Your task to perform on an android device: open app "Instagram" (install if not already installed) and enter user name: "nobler@yahoo.com" and password: "foraging" Image 0: 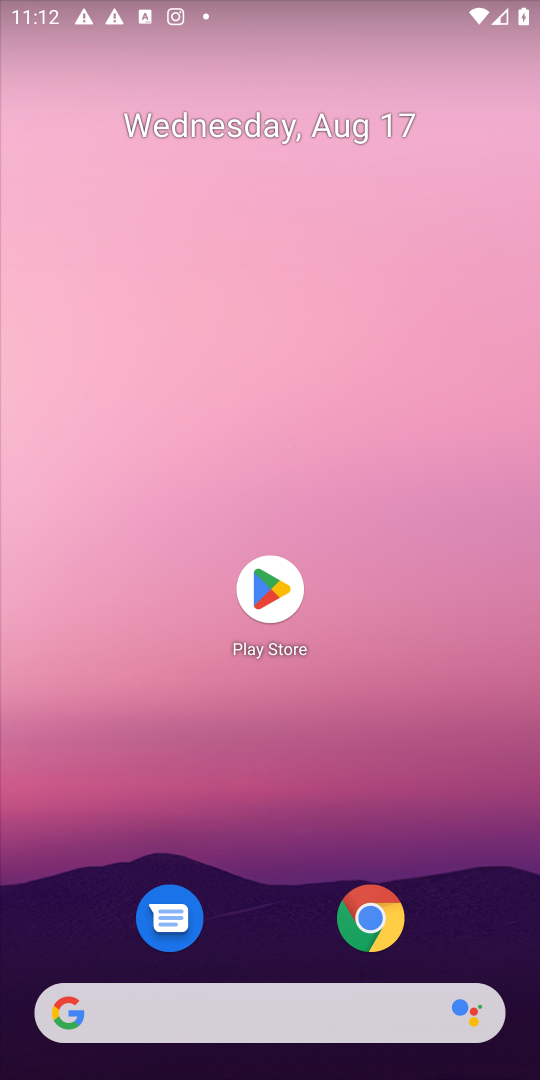
Step 0: click (257, 585)
Your task to perform on an android device: open app "Instagram" (install if not already installed) and enter user name: "nobler@yahoo.com" and password: "foraging" Image 1: 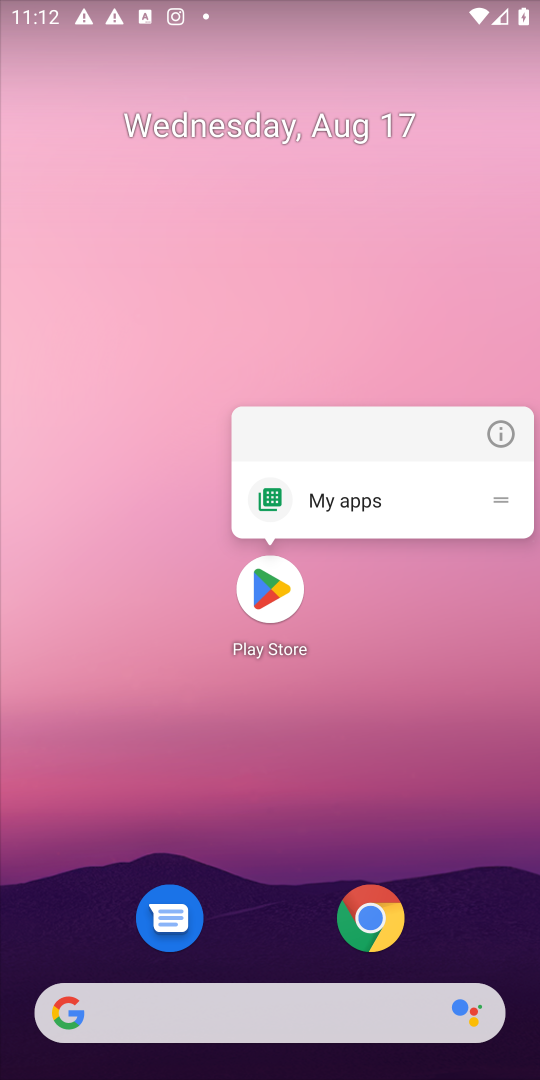
Step 1: click (257, 585)
Your task to perform on an android device: open app "Instagram" (install if not already installed) and enter user name: "nobler@yahoo.com" and password: "foraging" Image 2: 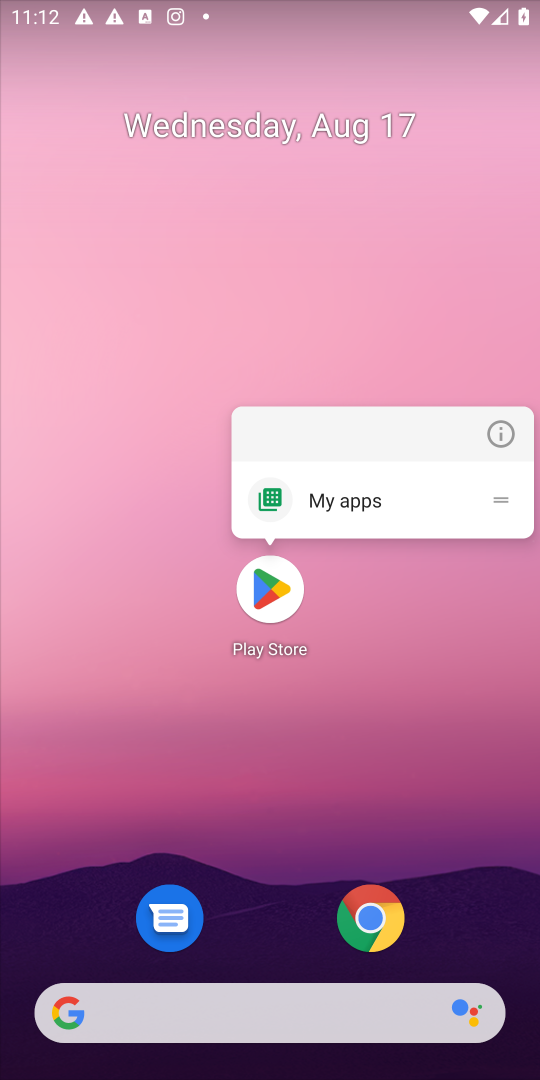
Step 2: click (247, 578)
Your task to perform on an android device: open app "Instagram" (install if not already installed) and enter user name: "nobler@yahoo.com" and password: "foraging" Image 3: 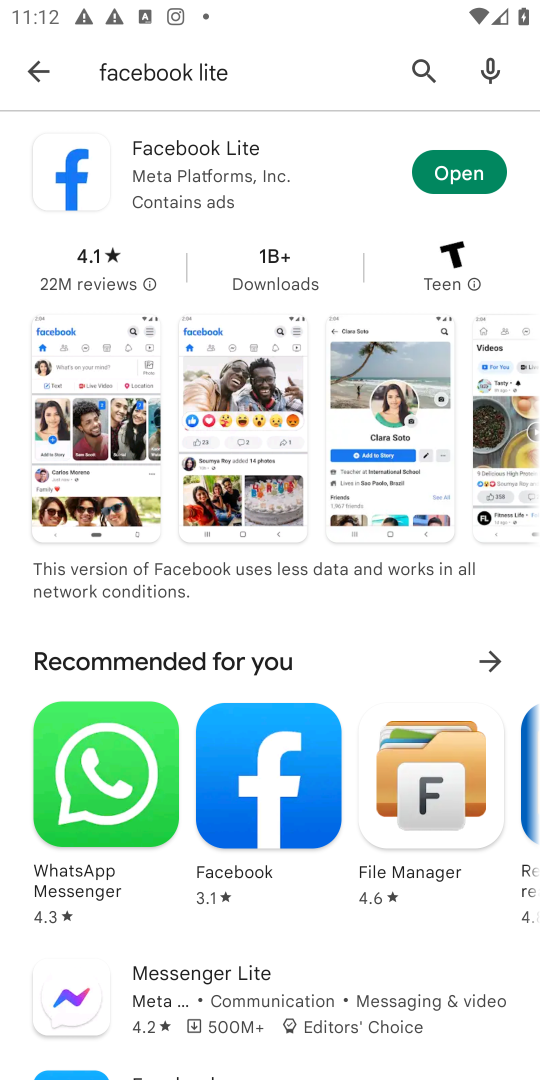
Step 3: click (415, 63)
Your task to perform on an android device: open app "Instagram" (install if not already installed) and enter user name: "nobler@yahoo.com" and password: "foraging" Image 4: 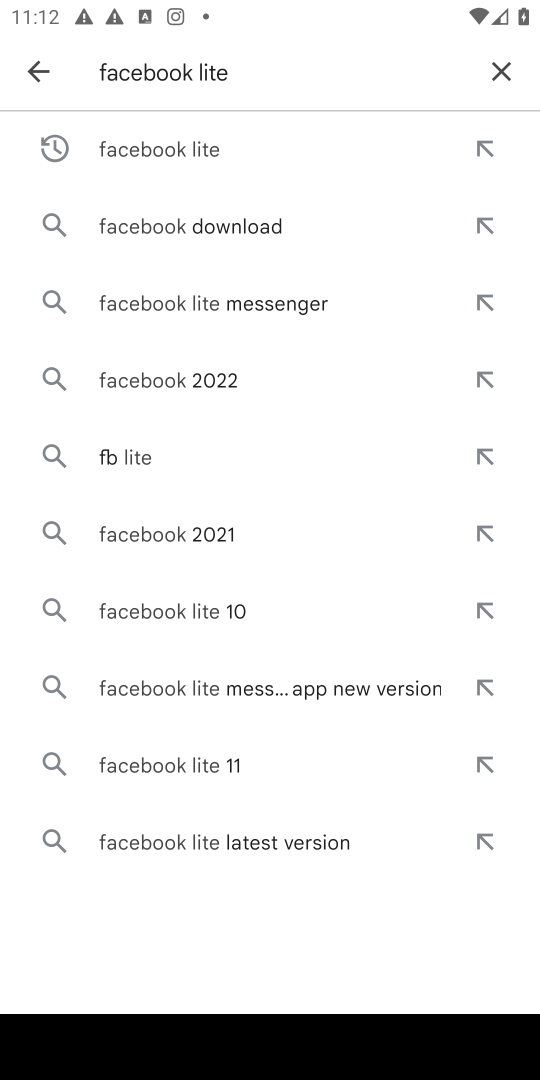
Step 4: click (498, 56)
Your task to perform on an android device: open app "Instagram" (install if not already installed) and enter user name: "nobler@yahoo.com" and password: "foraging" Image 5: 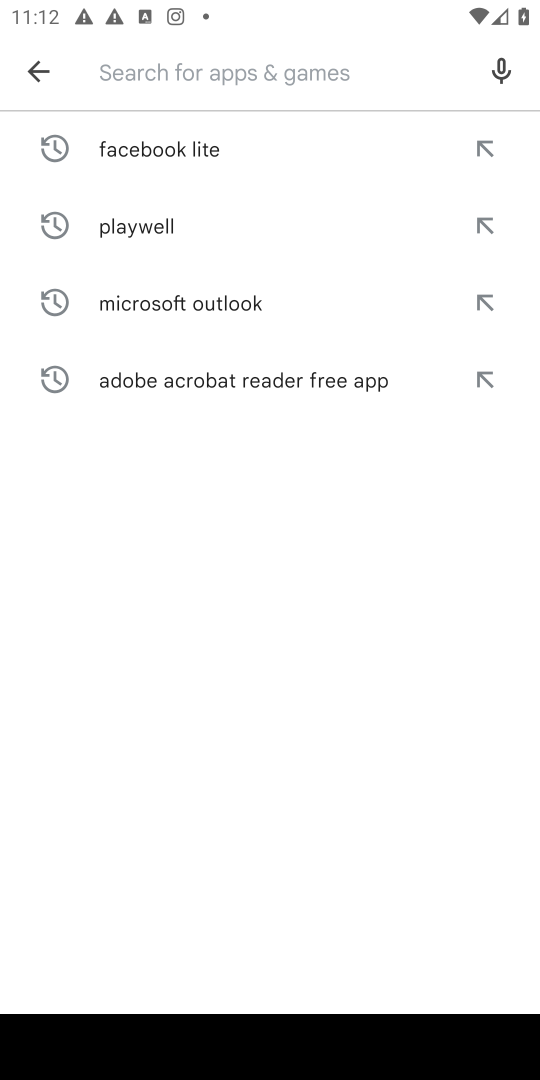
Step 5: type "Instagram"
Your task to perform on an android device: open app "Instagram" (install if not already installed) and enter user name: "nobler@yahoo.com" and password: "foraging" Image 6: 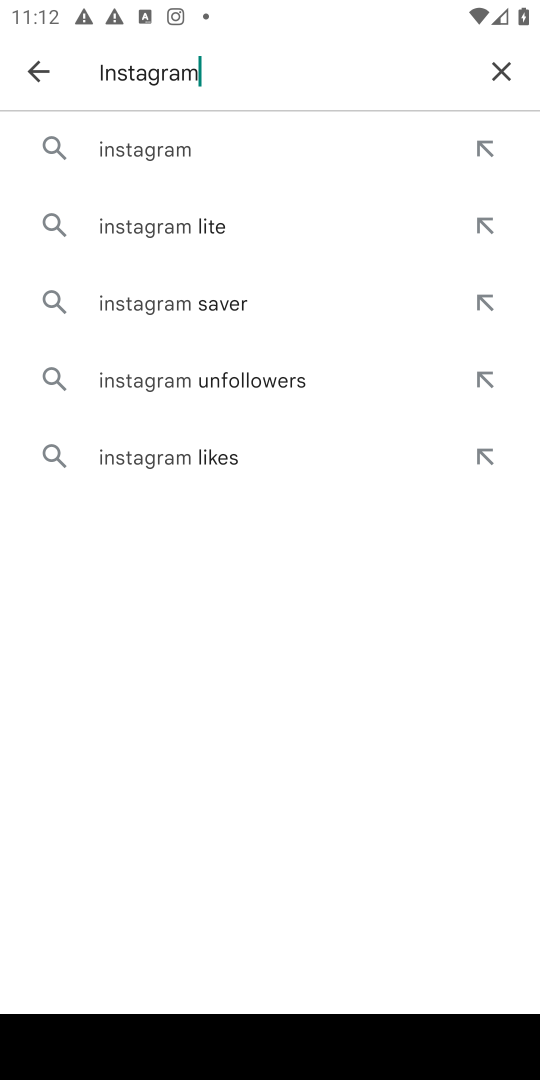
Step 6: click (153, 140)
Your task to perform on an android device: open app "Instagram" (install if not already installed) and enter user name: "nobler@yahoo.com" and password: "foraging" Image 7: 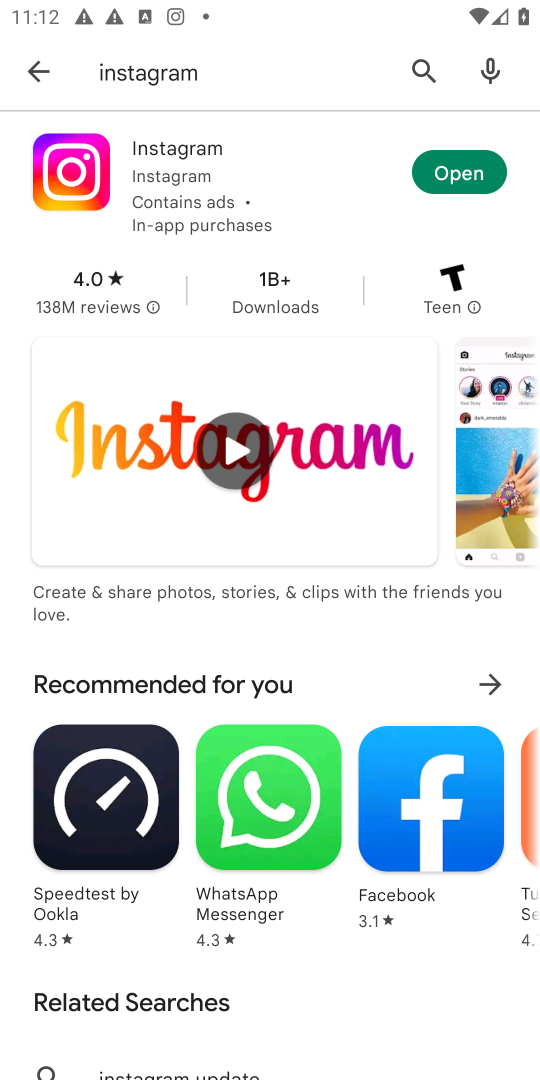
Step 7: click (458, 155)
Your task to perform on an android device: open app "Instagram" (install if not already installed) and enter user name: "nobler@yahoo.com" and password: "foraging" Image 8: 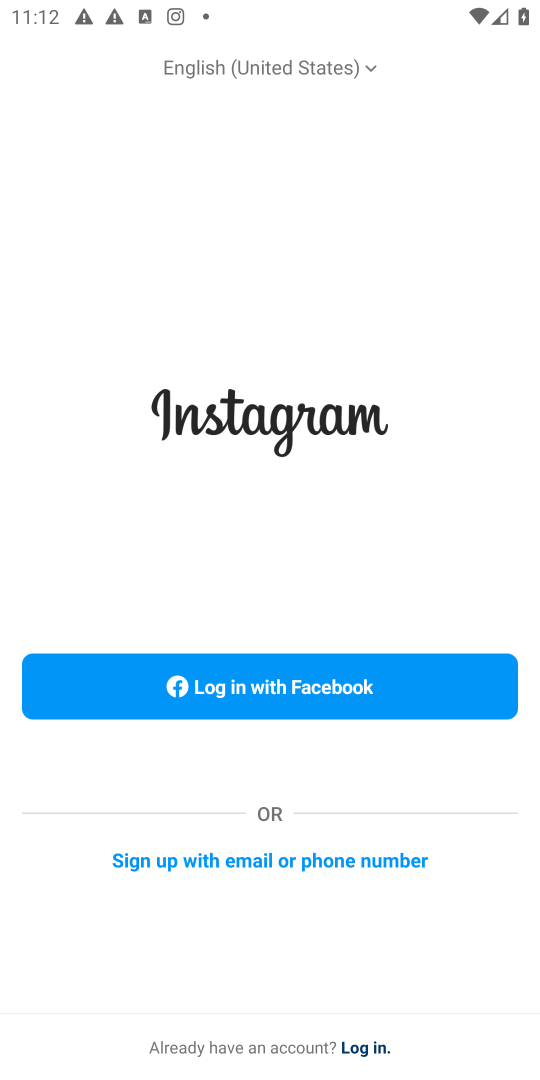
Step 8: click (314, 861)
Your task to perform on an android device: open app "Instagram" (install if not already installed) and enter user name: "nobler@yahoo.com" and password: "foraging" Image 9: 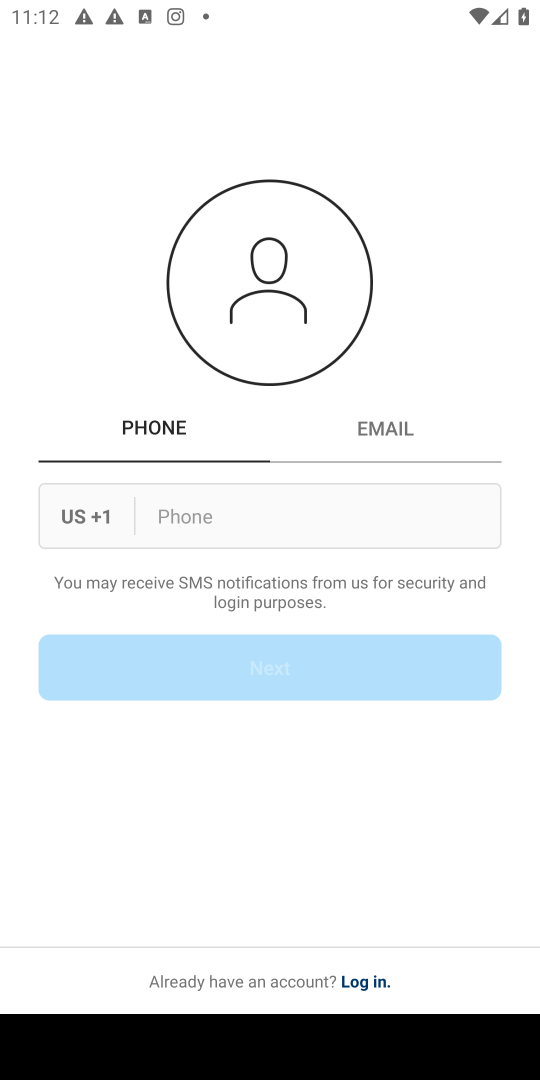
Step 9: click (395, 425)
Your task to perform on an android device: open app "Instagram" (install if not already installed) and enter user name: "nobler@yahoo.com" and password: "foraging" Image 10: 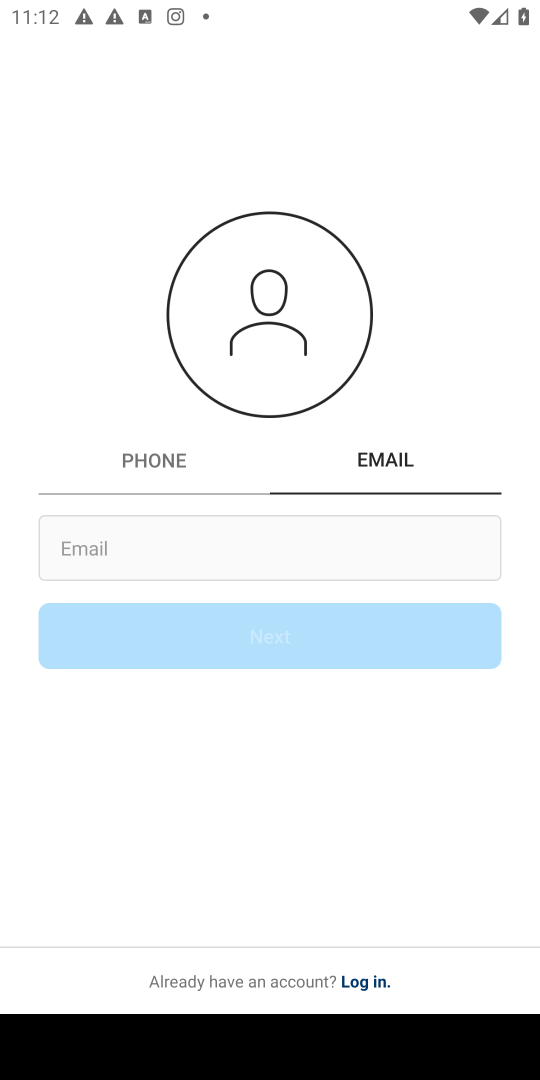
Step 10: type "nobler@yahoo.com"
Your task to perform on an android device: open app "Instagram" (install if not already installed) and enter user name: "nobler@yahoo.com" and password: "foraging" Image 11: 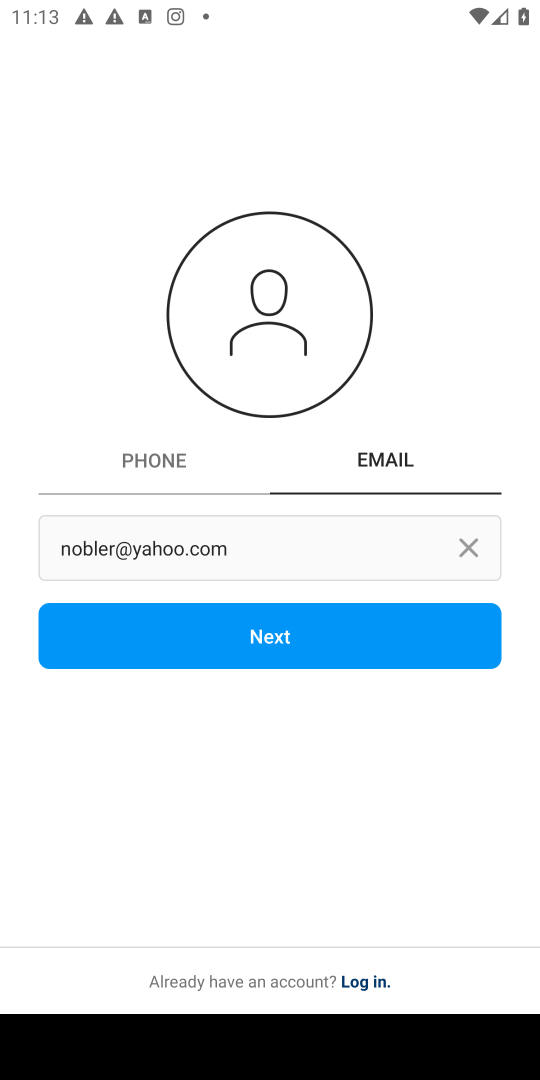
Step 11: click (251, 628)
Your task to perform on an android device: open app "Instagram" (install if not already installed) and enter user name: "nobler@yahoo.com" and password: "foraging" Image 12: 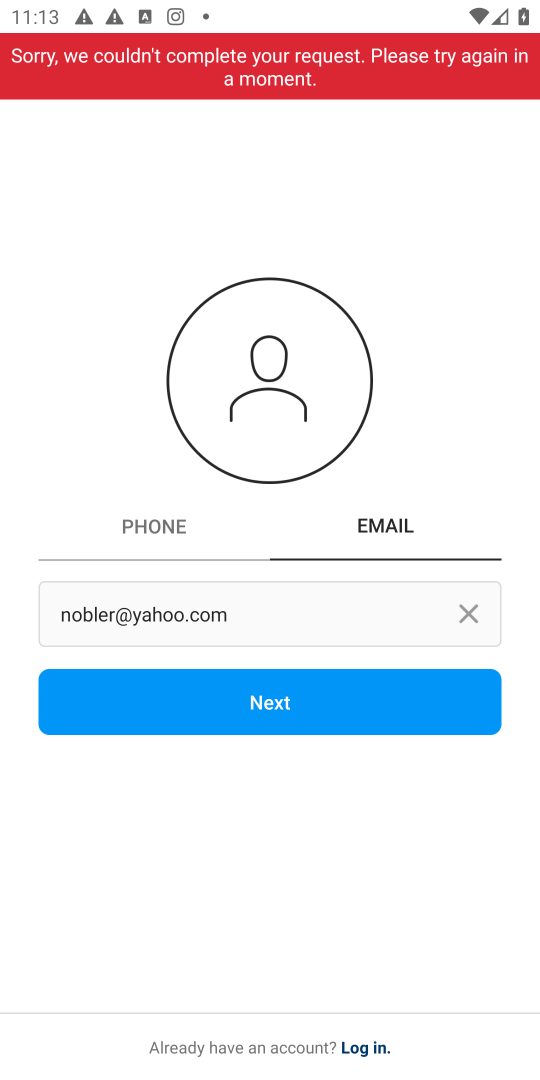
Step 12: task complete